Your task to perform on an android device: Toggle the flashlight Image 0: 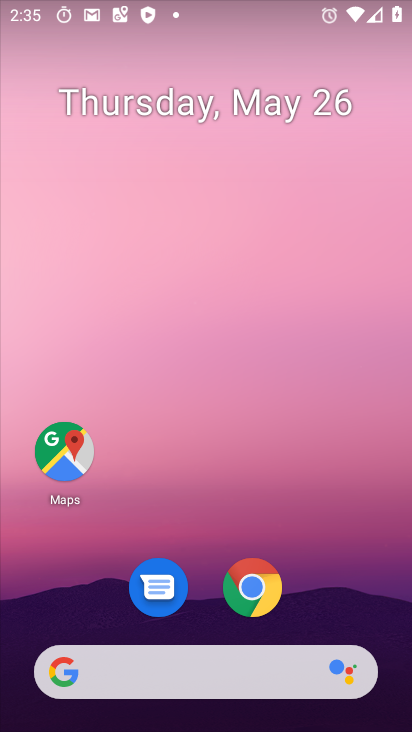
Step 0: drag from (259, 709) to (304, 151)
Your task to perform on an android device: Toggle the flashlight Image 1: 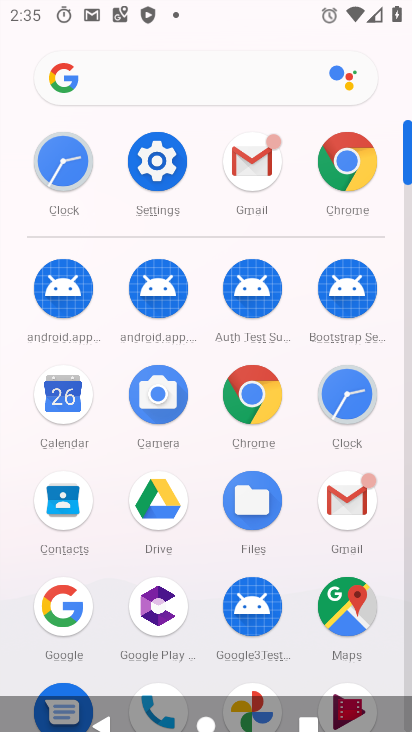
Step 1: click (145, 157)
Your task to perform on an android device: Toggle the flashlight Image 2: 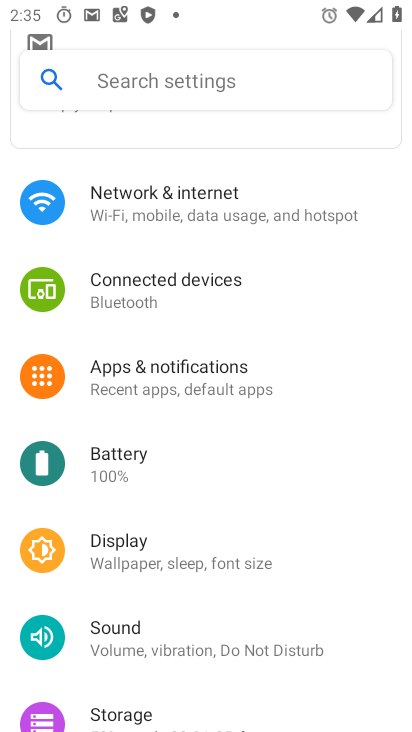
Step 2: click (172, 94)
Your task to perform on an android device: Toggle the flashlight Image 3: 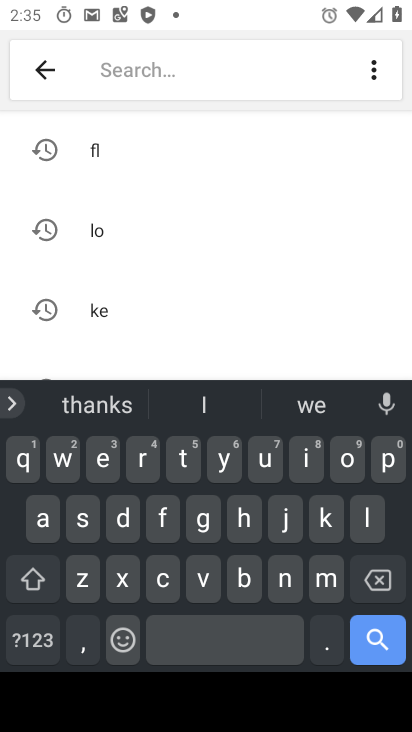
Step 3: click (166, 521)
Your task to perform on an android device: Toggle the flashlight Image 4: 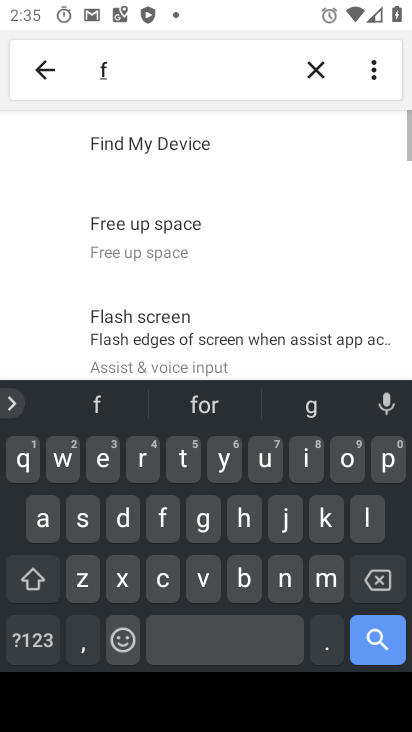
Step 4: click (367, 517)
Your task to perform on an android device: Toggle the flashlight Image 5: 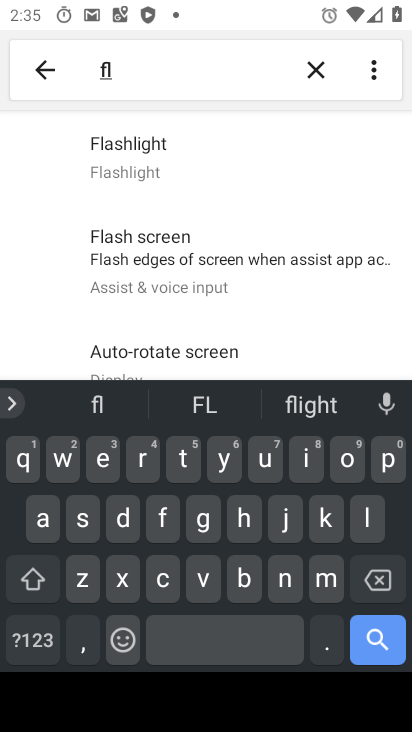
Step 5: click (149, 138)
Your task to perform on an android device: Toggle the flashlight Image 6: 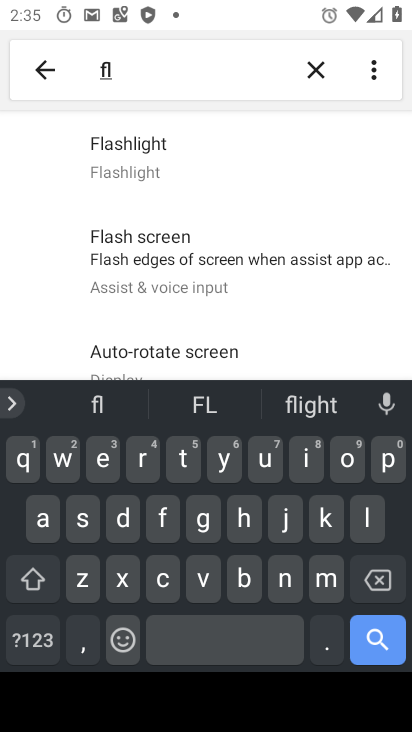
Step 6: task complete